Your task to perform on an android device: toggle notifications settings in the gmail app Image 0: 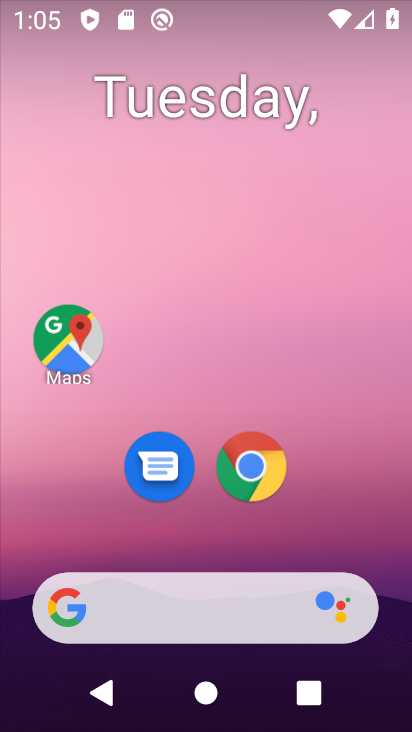
Step 0: drag from (346, 512) to (296, 143)
Your task to perform on an android device: toggle notifications settings in the gmail app Image 1: 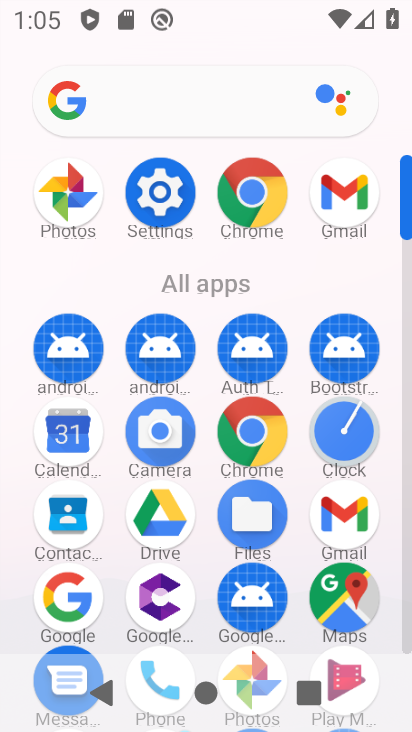
Step 1: click (322, 212)
Your task to perform on an android device: toggle notifications settings in the gmail app Image 2: 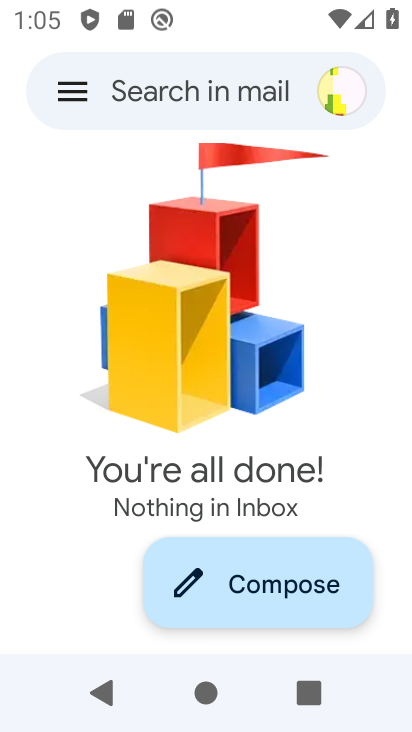
Step 2: task complete